Your task to perform on an android device: change alarm snooze length Image 0: 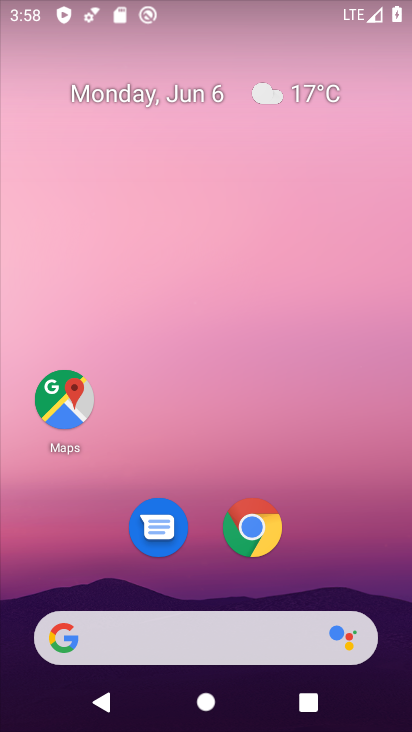
Step 0: drag from (322, 442) to (358, 234)
Your task to perform on an android device: change alarm snooze length Image 1: 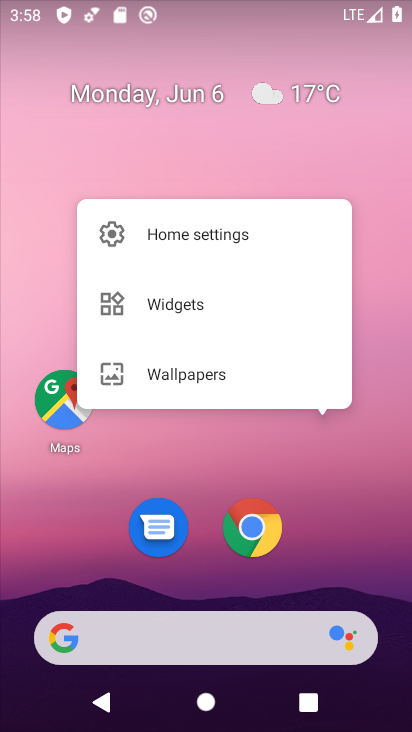
Step 1: click (386, 122)
Your task to perform on an android device: change alarm snooze length Image 2: 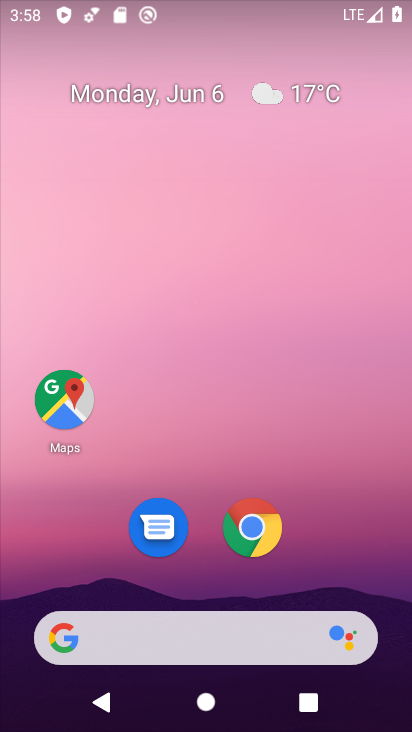
Step 2: drag from (323, 535) to (361, 391)
Your task to perform on an android device: change alarm snooze length Image 3: 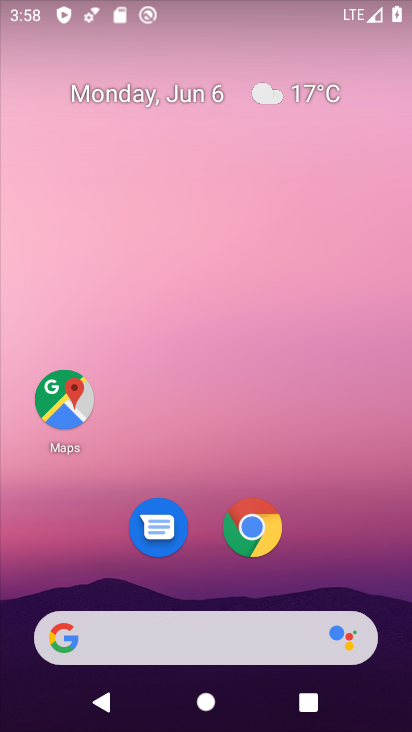
Step 3: click (361, 391)
Your task to perform on an android device: change alarm snooze length Image 4: 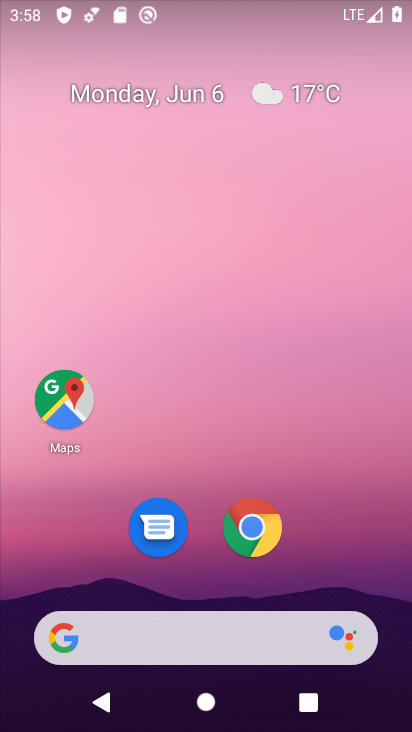
Step 4: drag from (340, 505) to (350, 177)
Your task to perform on an android device: change alarm snooze length Image 5: 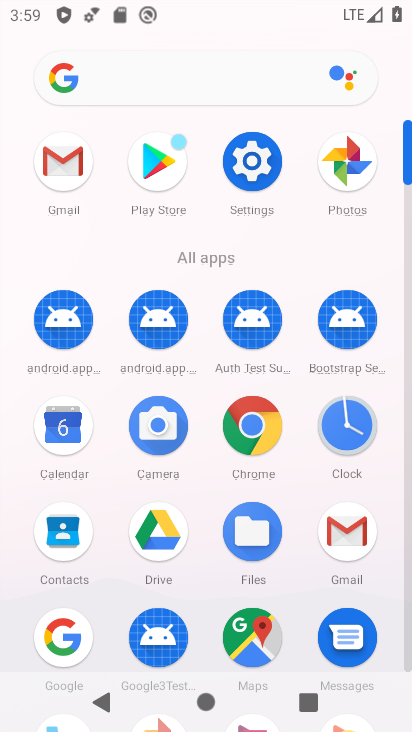
Step 5: click (360, 418)
Your task to perform on an android device: change alarm snooze length Image 6: 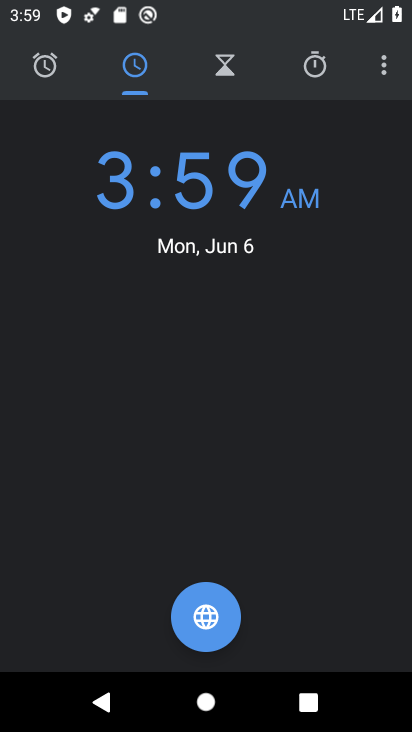
Step 6: click (48, 57)
Your task to perform on an android device: change alarm snooze length Image 7: 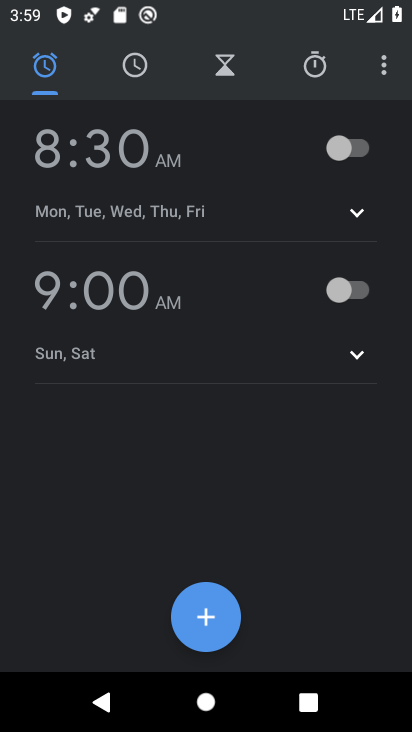
Step 7: click (385, 57)
Your task to perform on an android device: change alarm snooze length Image 8: 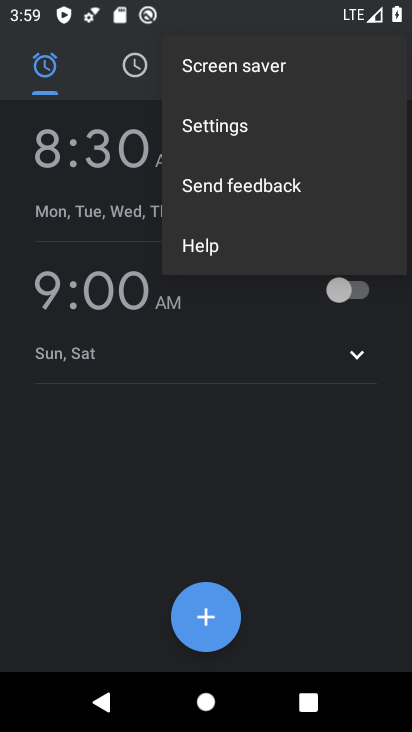
Step 8: click (247, 128)
Your task to perform on an android device: change alarm snooze length Image 9: 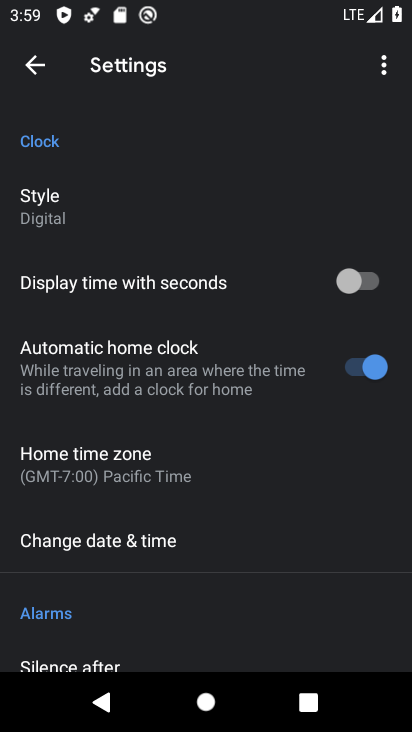
Step 9: drag from (234, 612) to (281, 390)
Your task to perform on an android device: change alarm snooze length Image 10: 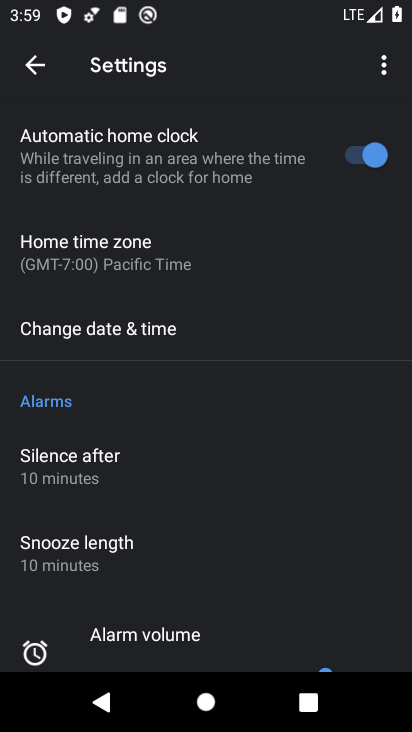
Step 10: click (124, 539)
Your task to perform on an android device: change alarm snooze length Image 11: 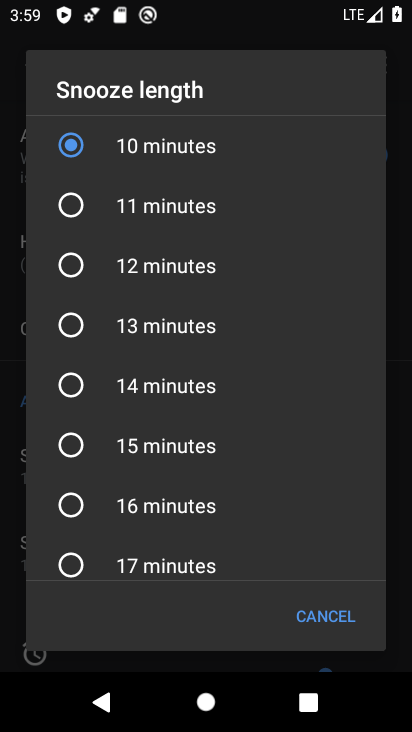
Step 11: click (76, 505)
Your task to perform on an android device: change alarm snooze length Image 12: 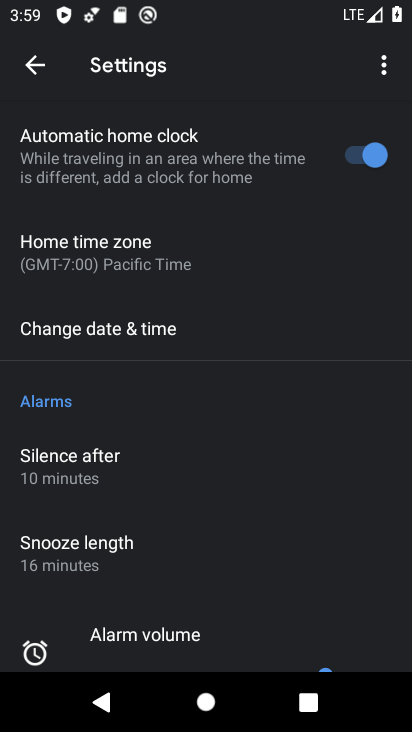
Step 12: task complete